Your task to perform on an android device: uninstall "PlayWell" Image 0: 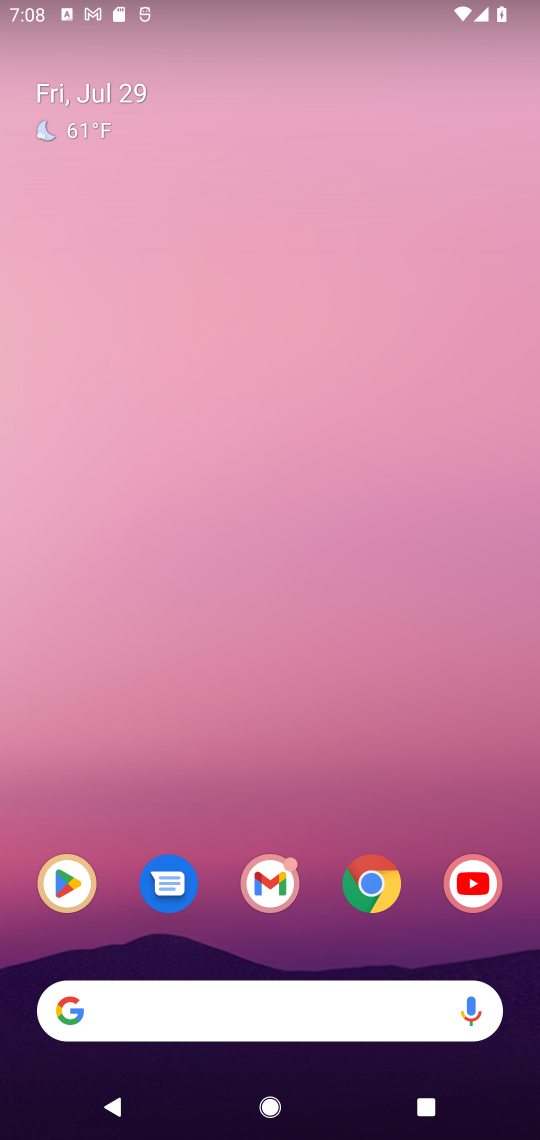
Step 0: click (73, 875)
Your task to perform on an android device: uninstall "PlayWell" Image 1: 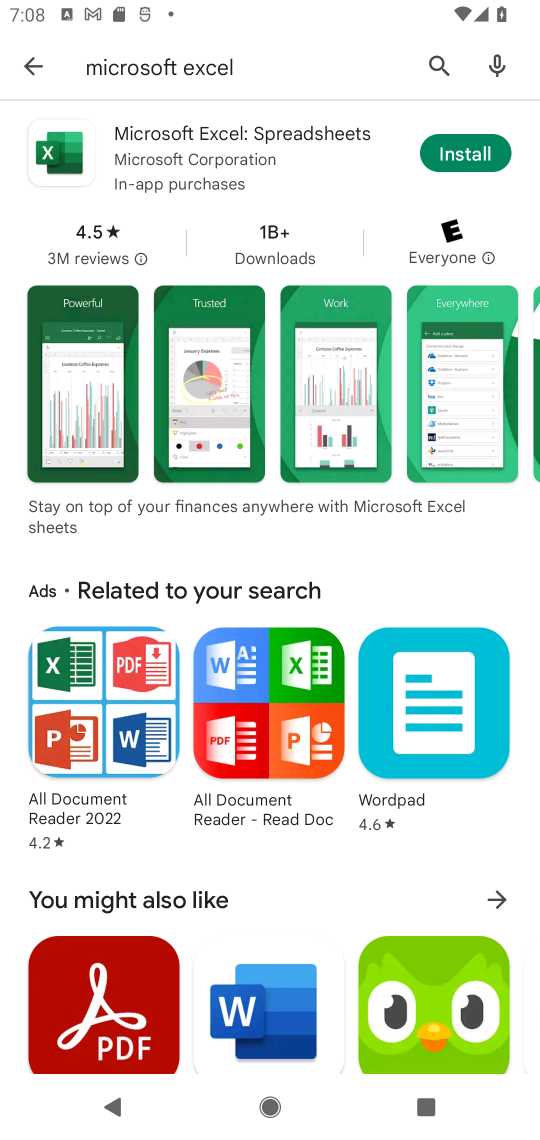
Step 1: click (432, 63)
Your task to perform on an android device: uninstall "PlayWell" Image 2: 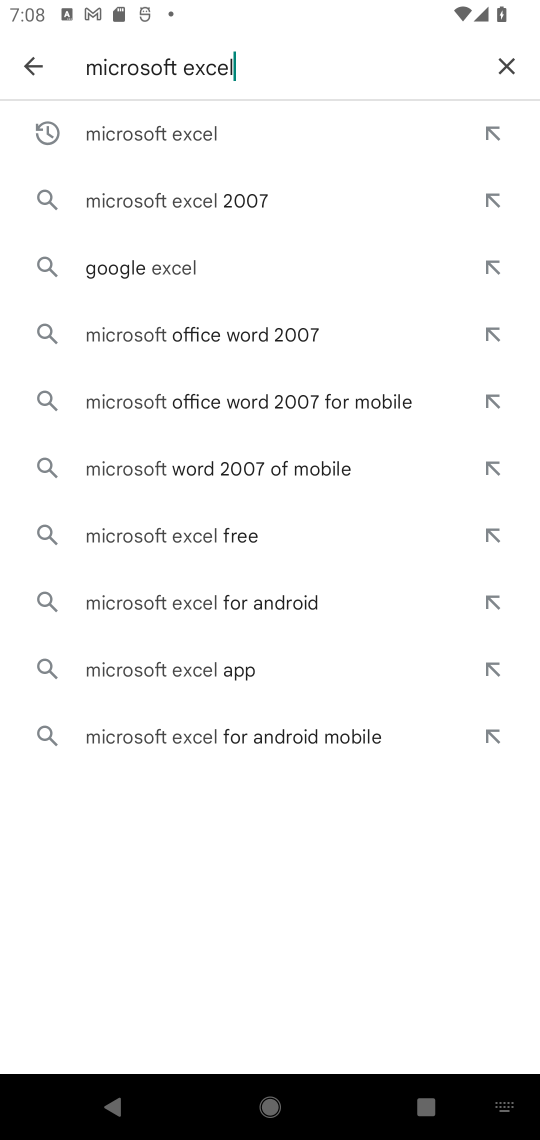
Step 2: click (512, 54)
Your task to perform on an android device: uninstall "PlayWell" Image 3: 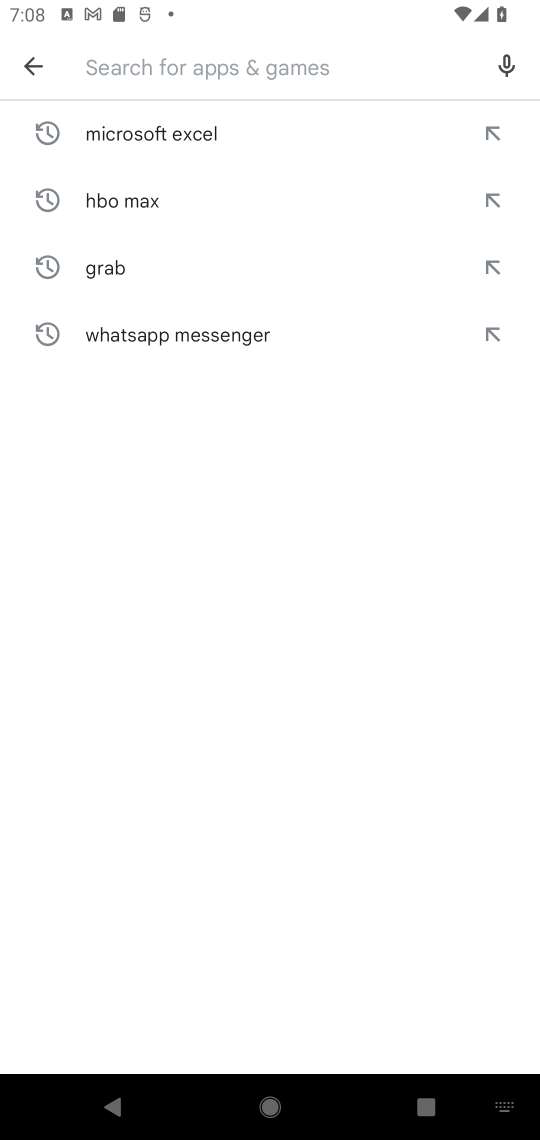
Step 3: click (215, 52)
Your task to perform on an android device: uninstall "PlayWell" Image 4: 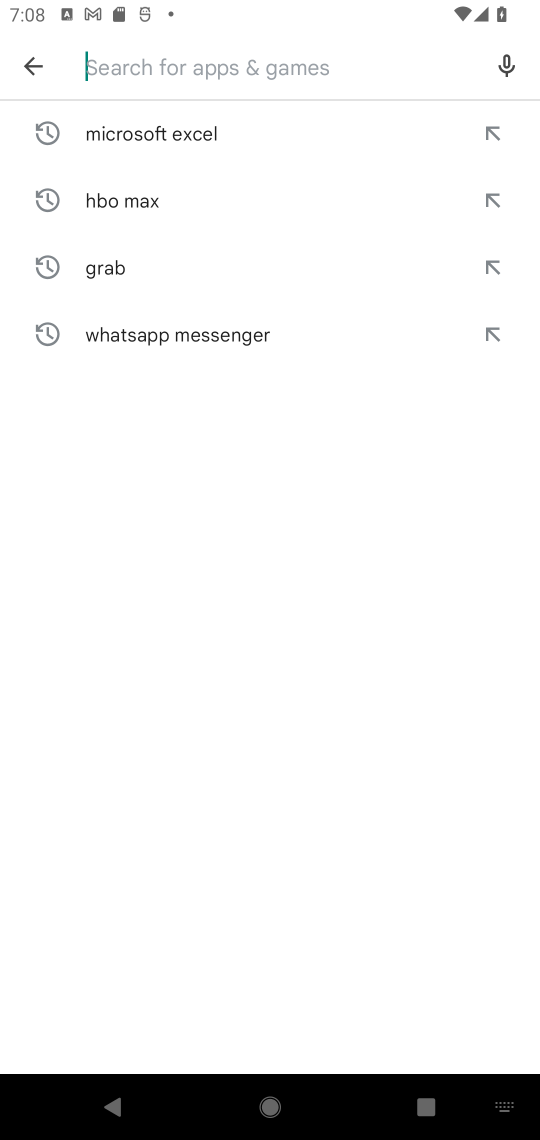
Step 4: type "playwell"
Your task to perform on an android device: uninstall "PlayWell" Image 5: 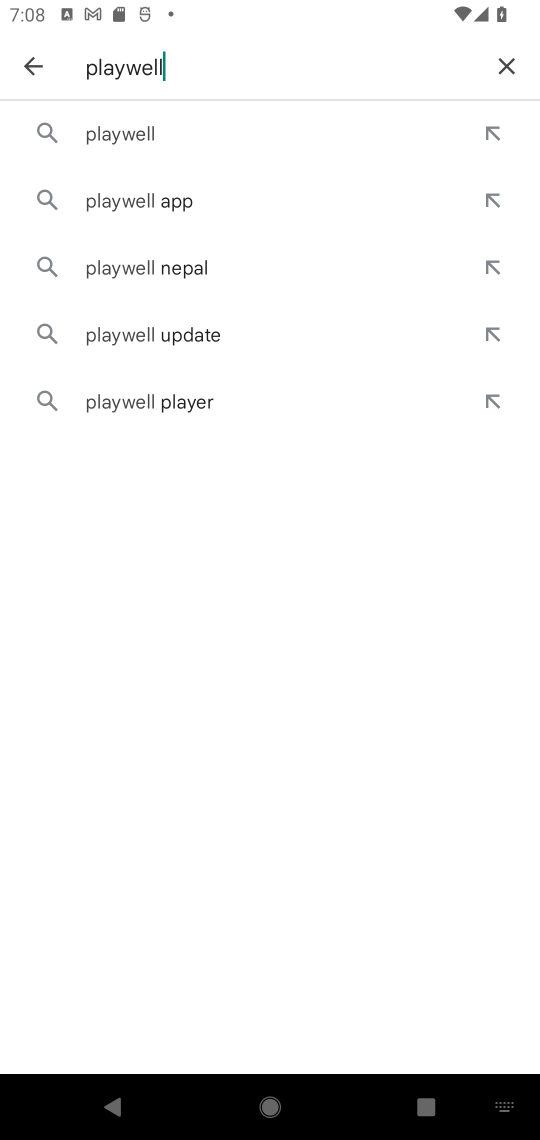
Step 5: click (142, 122)
Your task to perform on an android device: uninstall "PlayWell" Image 6: 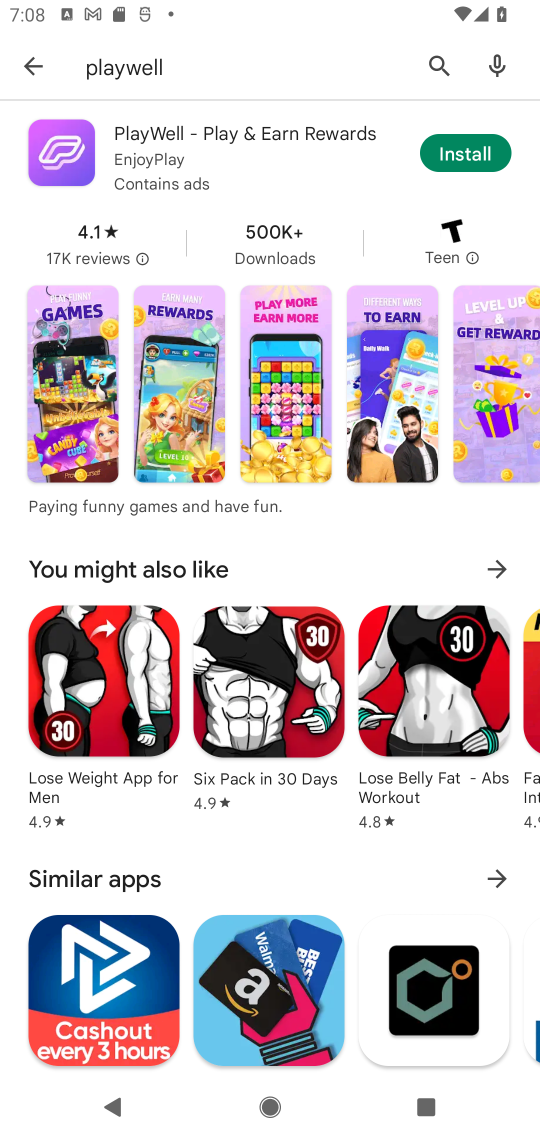
Step 6: task complete